Your task to perform on an android device: Go to ESPN.com Image 0: 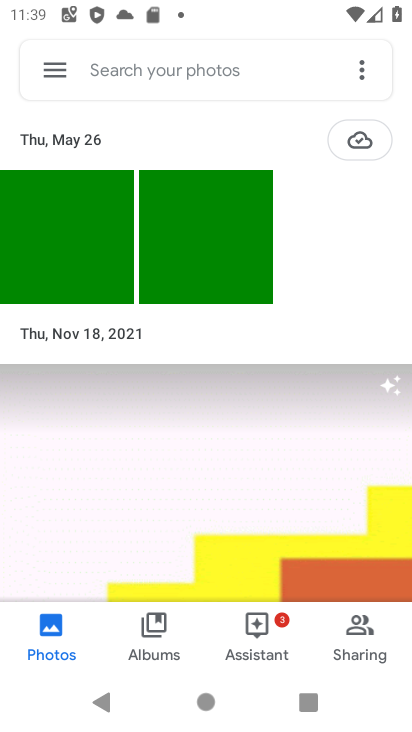
Step 0: press home button
Your task to perform on an android device: Go to ESPN.com Image 1: 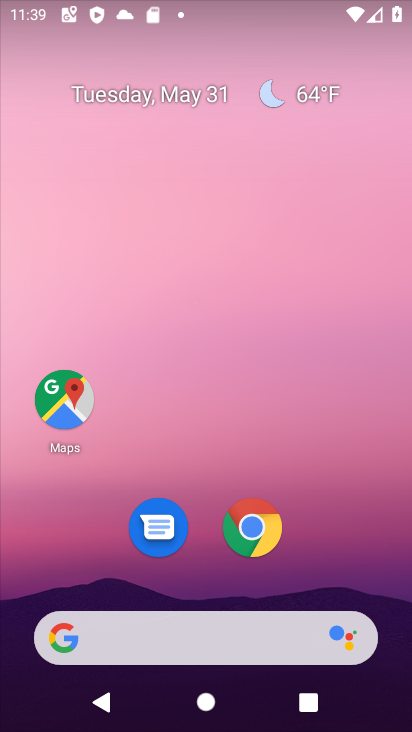
Step 1: click (235, 646)
Your task to perform on an android device: Go to ESPN.com Image 2: 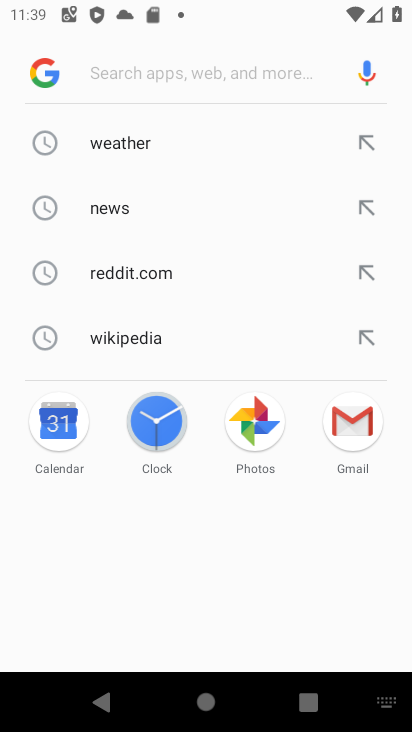
Step 2: type "espn"
Your task to perform on an android device: Go to ESPN.com Image 3: 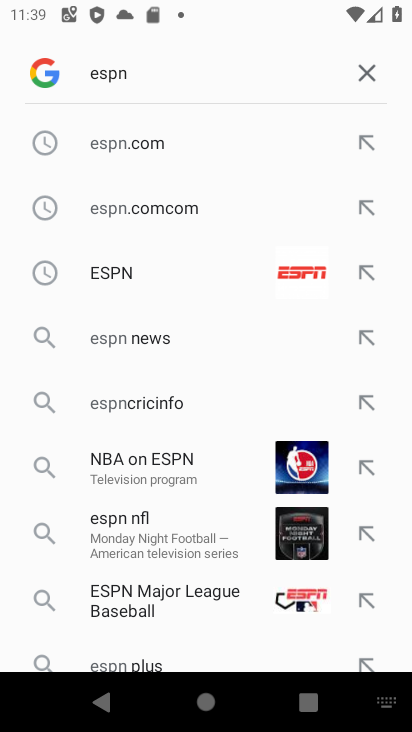
Step 3: click (234, 133)
Your task to perform on an android device: Go to ESPN.com Image 4: 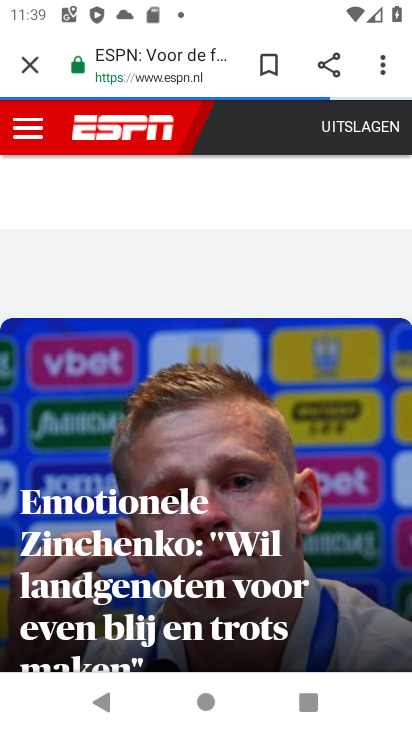
Step 4: task complete